Your task to perform on an android device: turn off smart reply in the gmail app Image 0: 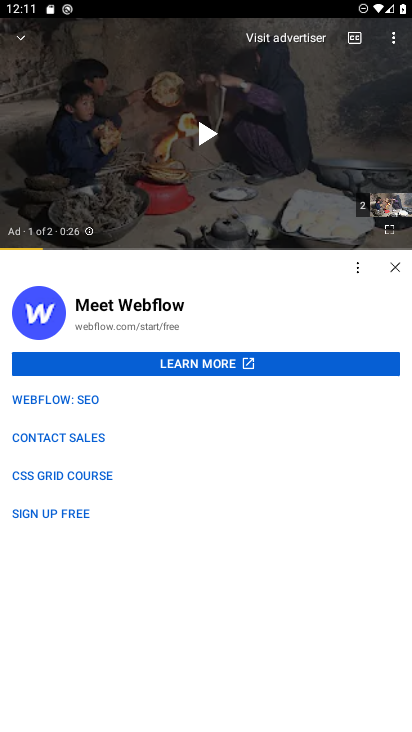
Step 0: press home button
Your task to perform on an android device: turn off smart reply in the gmail app Image 1: 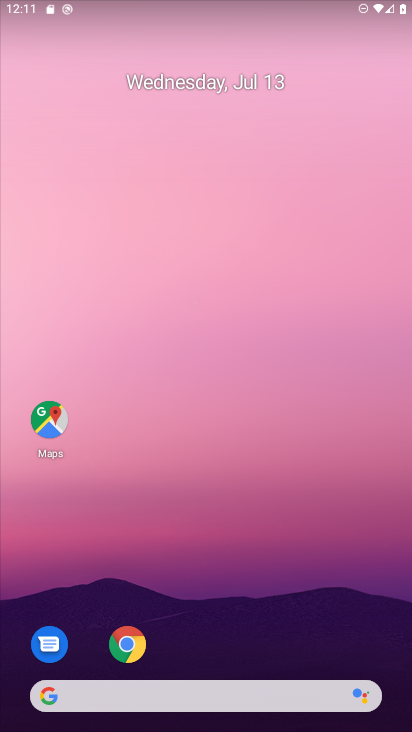
Step 1: drag from (244, 718) to (271, 121)
Your task to perform on an android device: turn off smart reply in the gmail app Image 2: 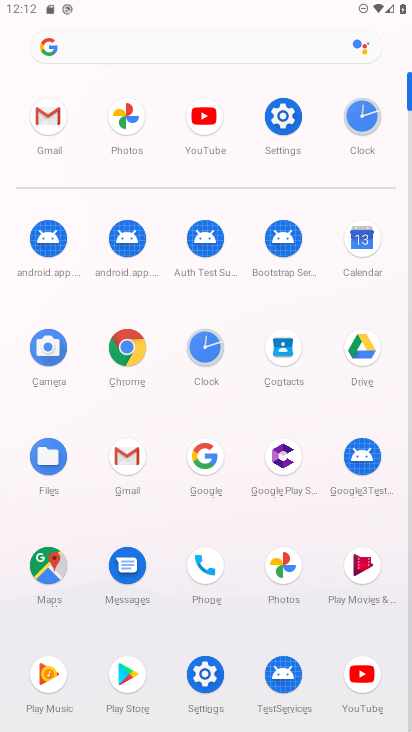
Step 2: click (128, 453)
Your task to perform on an android device: turn off smart reply in the gmail app Image 3: 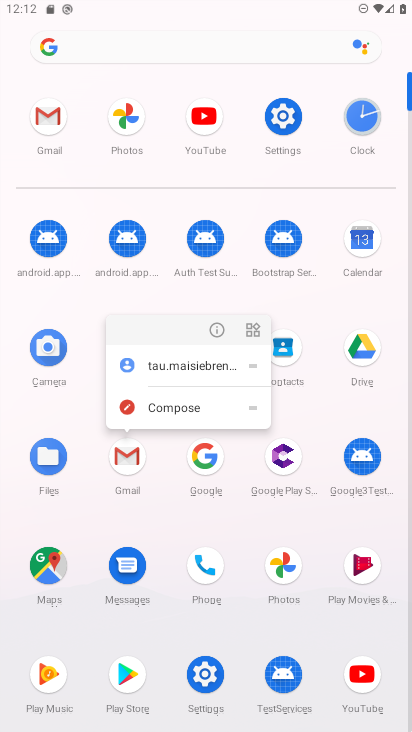
Step 3: click (128, 453)
Your task to perform on an android device: turn off smart reply in the gmail app Image 4: 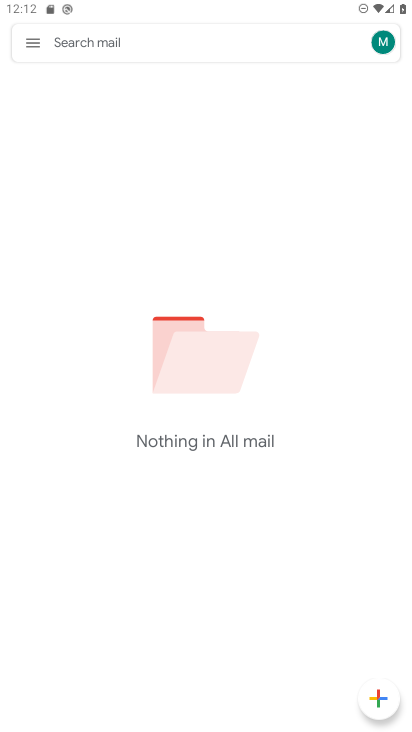
Step 4: click (31, 43)
Your task to perform on an android device: turn off smart reply in the gmail app Image 5: 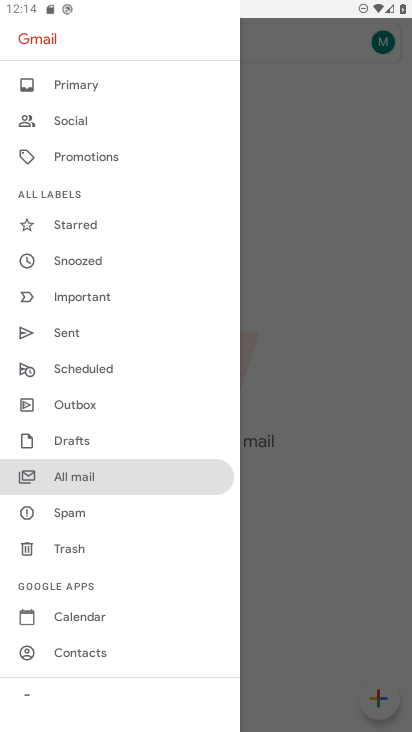
Step 5: drag from (98, 633) to (154, 185)
Your task to perform on an android device: turn off smart reply in the gmail app Image 6: 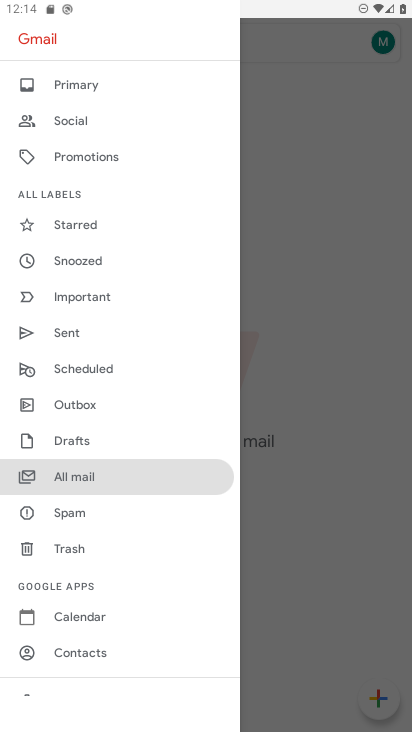
Step 6: drag from (140, 443) to (293, 18)
Your task to perform on an android device: turn off smart reply in the gmail app Image 7: 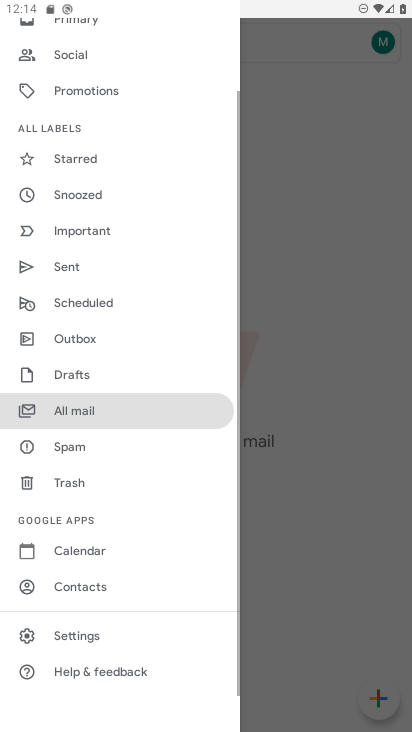
Step 7: drag from (119, 628) to (264, 6)
Your task to perform on an android device: turn off smart reply in the gmail app Image 8: 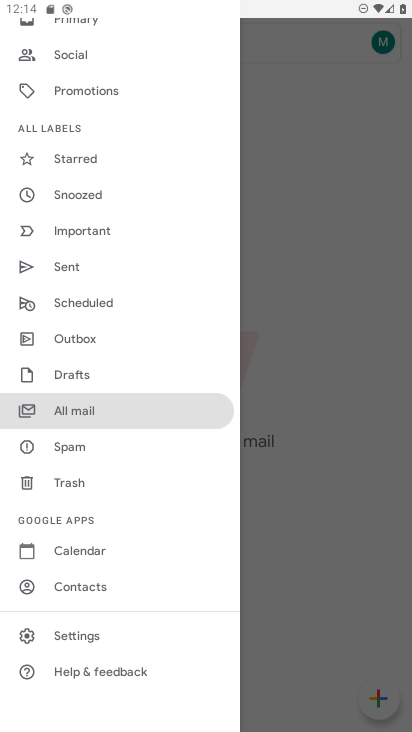
Step 8: click (96, 630)
Your task to perform on an android device: turn off smart reply in the gmail app Image 9: 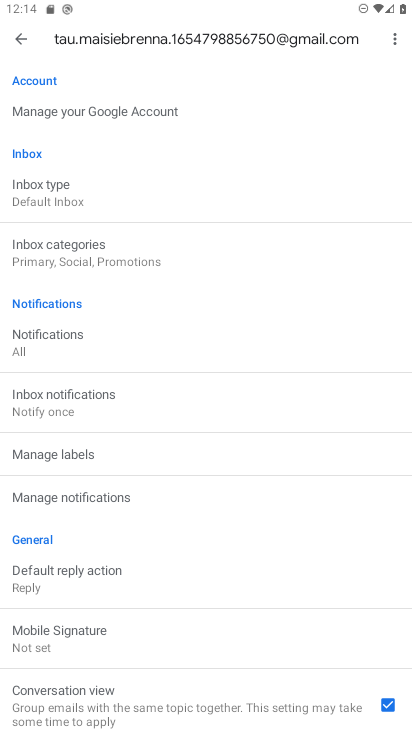
Step 9: drag from (254, 613) to (262, 48)
Your task to perform on an android device: turn off smart reply in the gmail app Image 10: 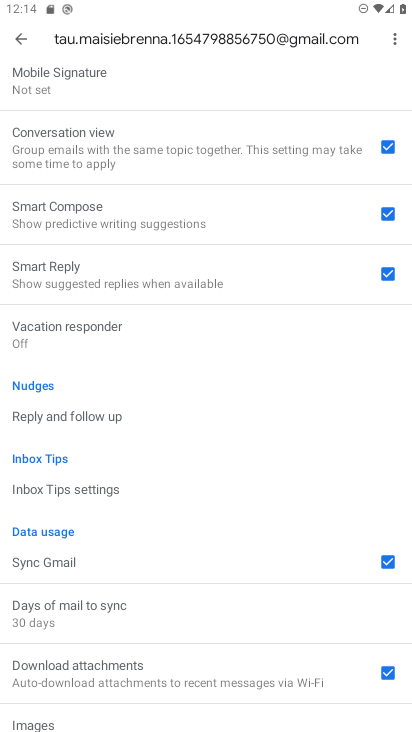
Step 10: click (389, 271)
Your task to perform on an android device: turn off smart reply in the gmail app Image 11: 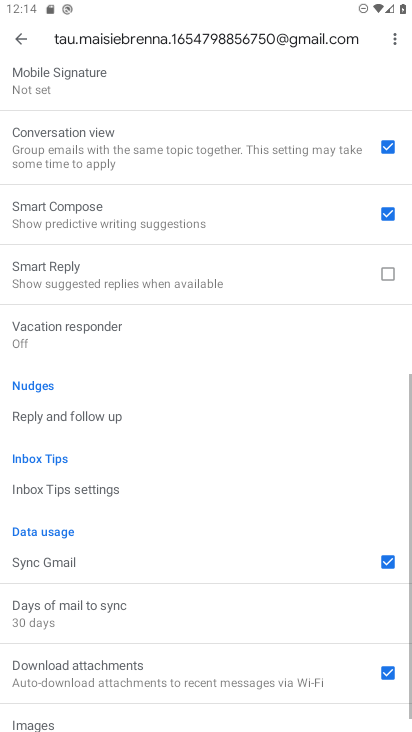
Step 11: task complete